Your task to perform on an android device: Open internet settings Image 0: 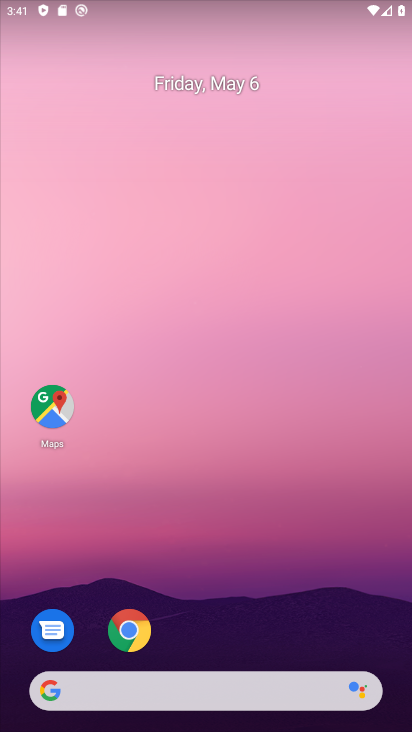
Step 0: drag from (287, 523) to (296, 119)
Your task to perform on an android device: Open internet settings Image 1: 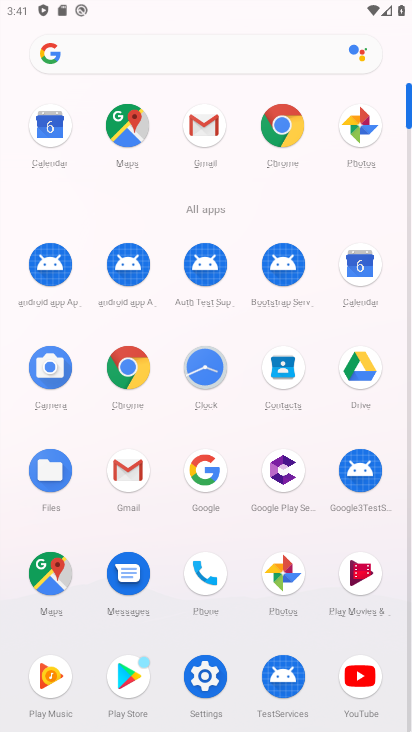
Step 1: click (202, 674)
Your task to perform on an android device: Open internet settings Image 2: 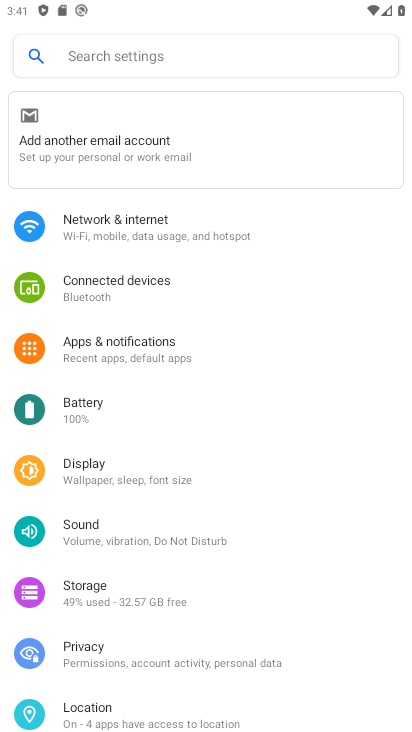
Step 2: click (132, 226)
Your task to perform on an android device: Open internet settings Image 3: 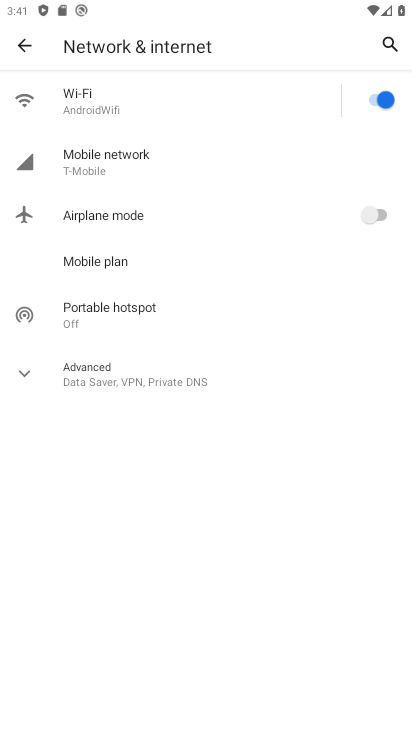
Step 3: task complete